Your task to perform on an android device: Search for custom made wallets on etsy.com Image 0: 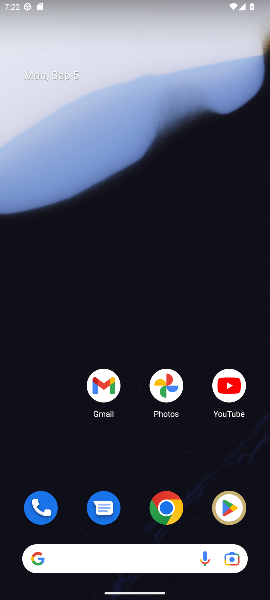
Step 0: click (166, 512)
Your task to perform on an android device: Search for custom made wallets on etsy.com Image 1: 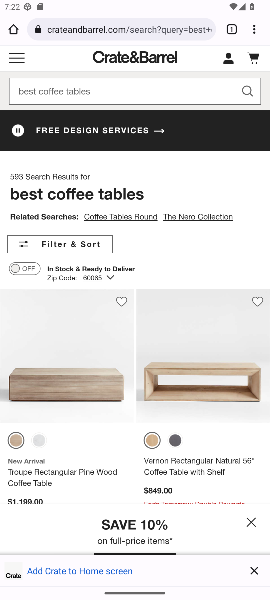
Step 1: click (126, 29)
Your task to perform on an android device: Search for custom made wallets on etsy.com Image 2: 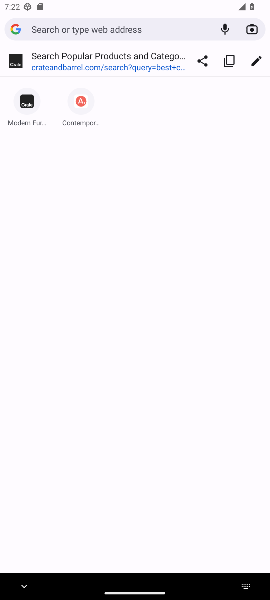
Step 2: type "etsy.com"
Your task to perform on an android device: Search for custom made wallets on etsy.com Image 3: 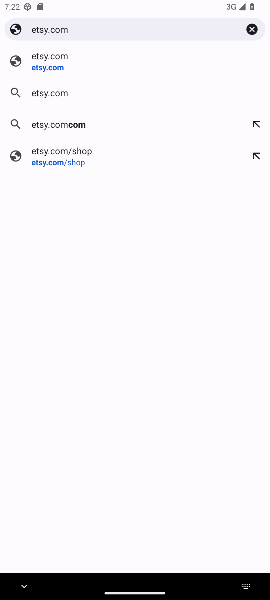
Step 3: click (52, 62)
Your task to perform on an android device: Search for custom made wallets on etsy.com Image 4: 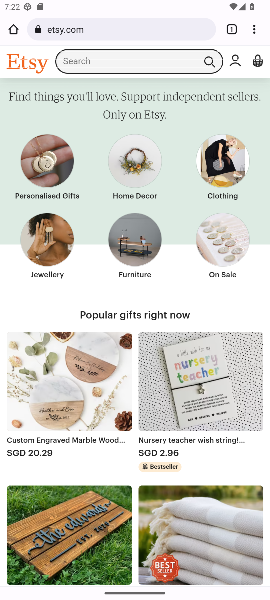
Step 4: click (84, 53)
Your task to perform on an android device: Search for custom made wallets on etsy.com Image 5: 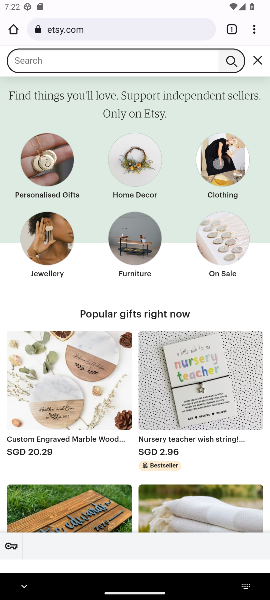
Step 5: type "custom made wallets "
Your task to perform on an android device: Search for custom made wallets on etsy.com Image 6: 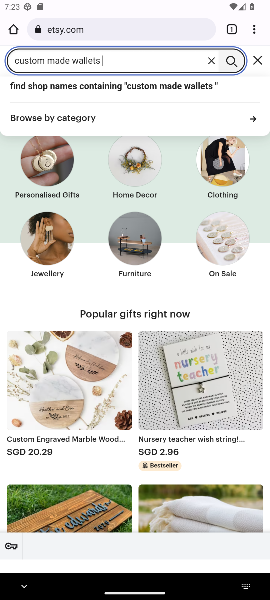
Step 6: click (233, 61)
Your task to perform on an android device: Search for custom made wallets on etsy.com Image 7: 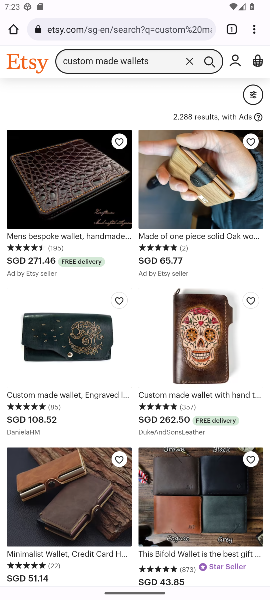
Step 7: task complete